Your task to perform on an android device: change the clock display to analog Image 0: 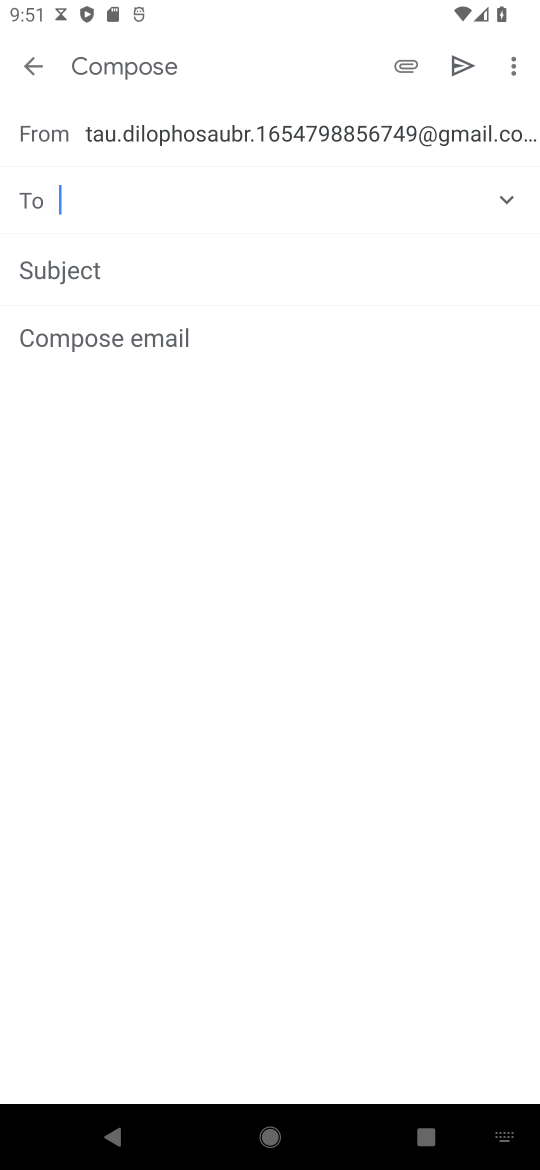
Step 0: press home button
Your task to perform on an android device: change the clock display to analog Image 1: 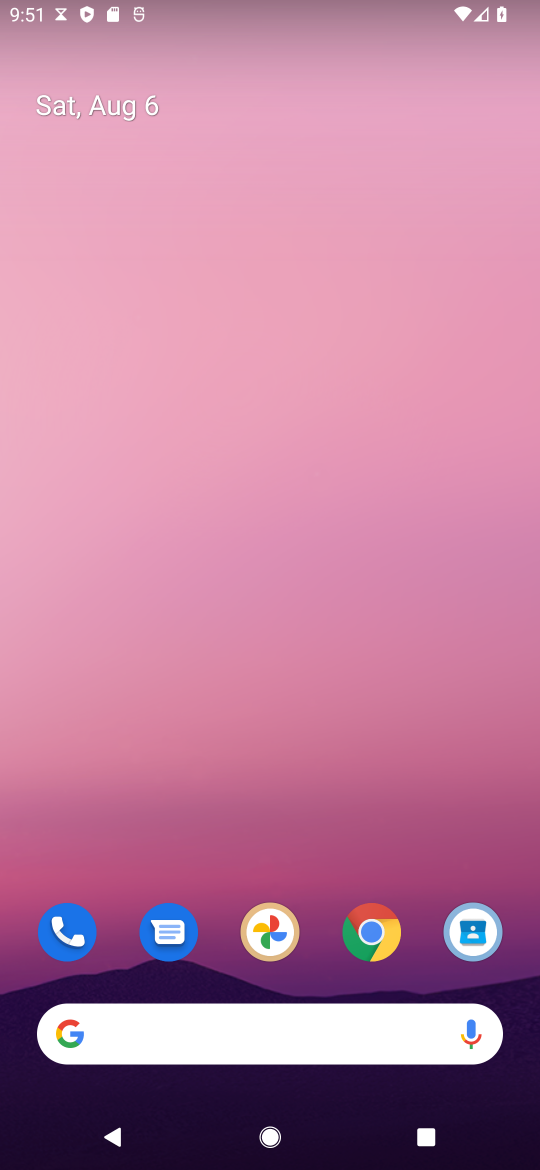
Step 1: drag from (191, 1023) to (240, 325)
Your task to perform on an android device: change the clock display to analog Image 2: 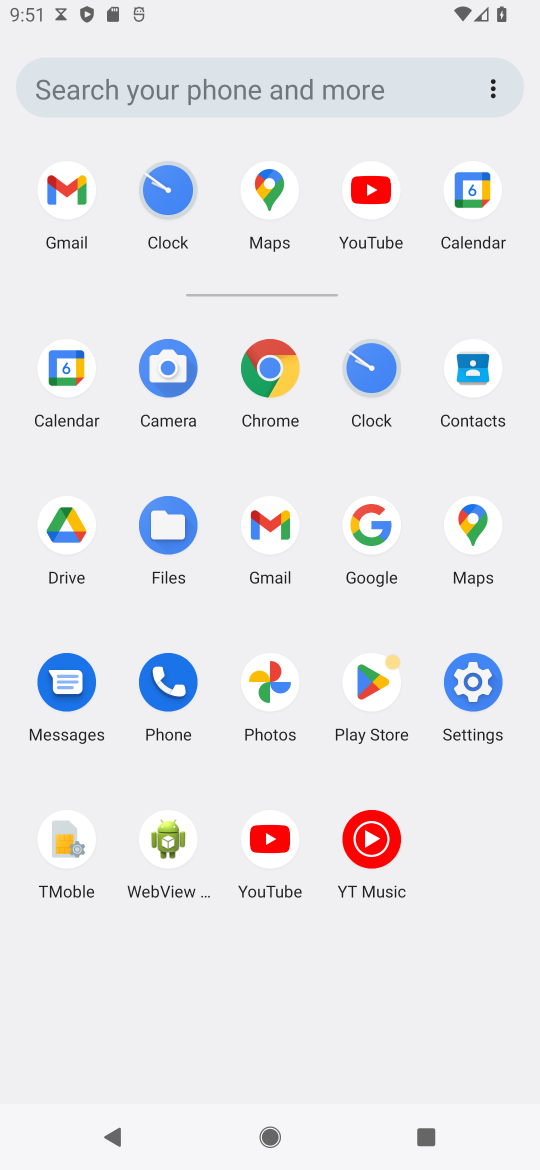
Step 2: click (167, 196)
Your task to perform on an android device: change the clock display to analog Image 3: 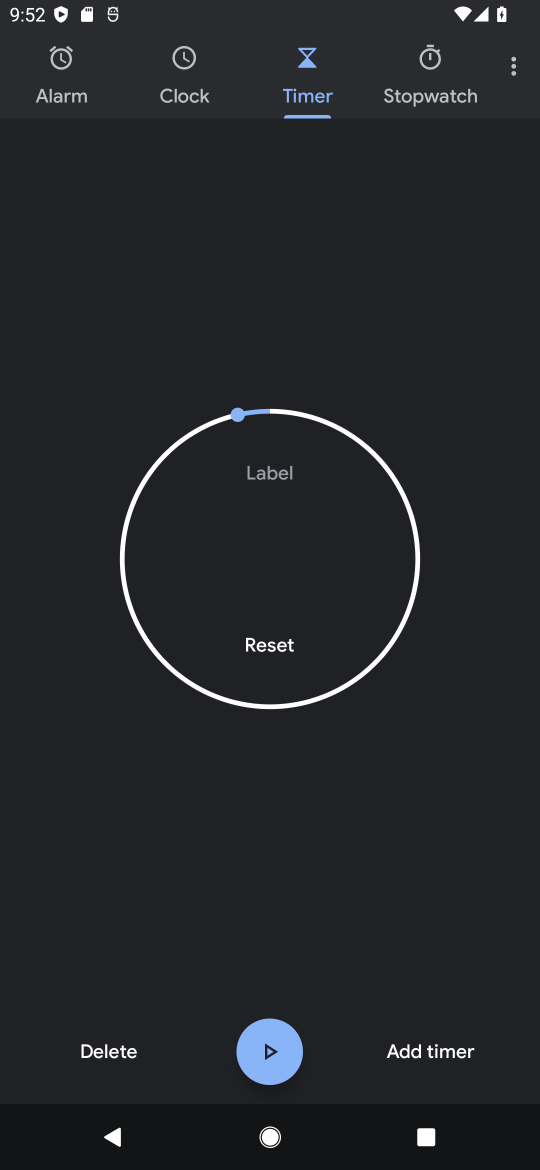
Step 3: click (513, 69)
Your task to perform on an android device: change the clock display to analog Image 4: 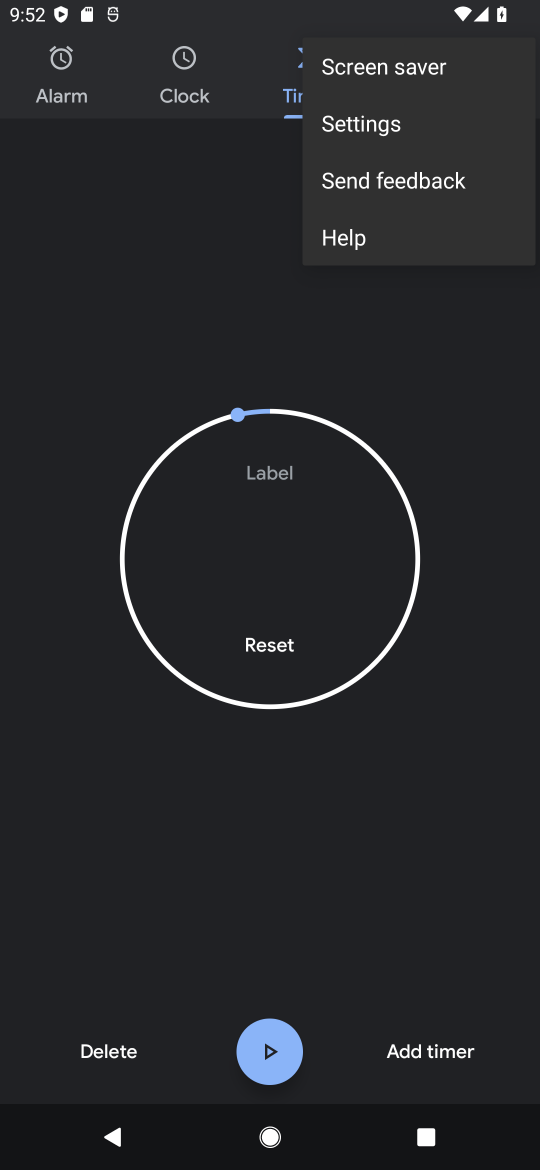
Step 4: click (378, 119)
Your task to perform on an android device: change the clock display to analog Image 5: 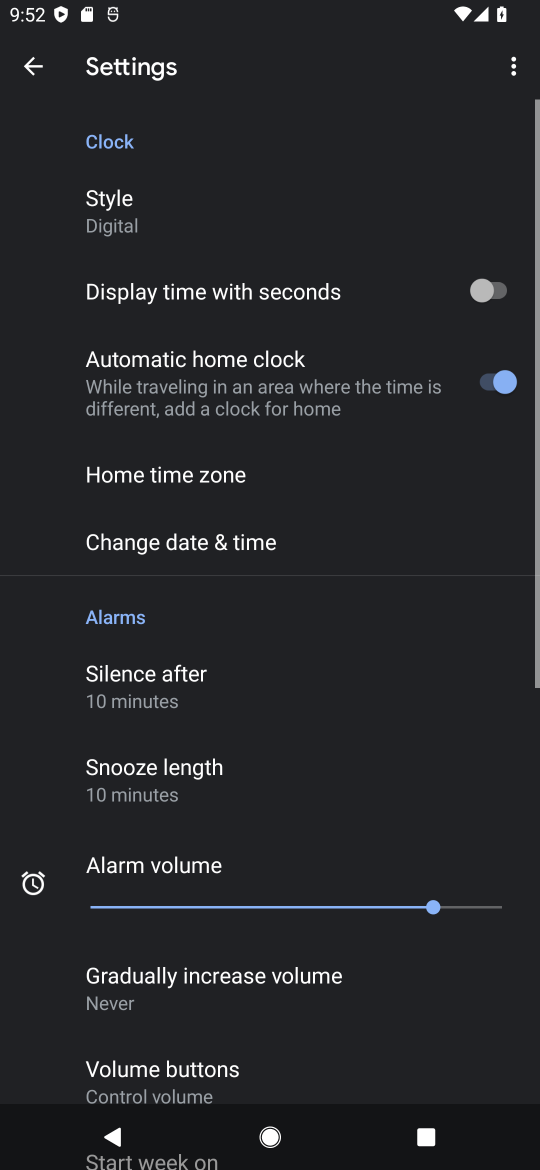
Step 5: click (113, 229)
Your task to perform on an android device: change the clock display to analog Image 6: 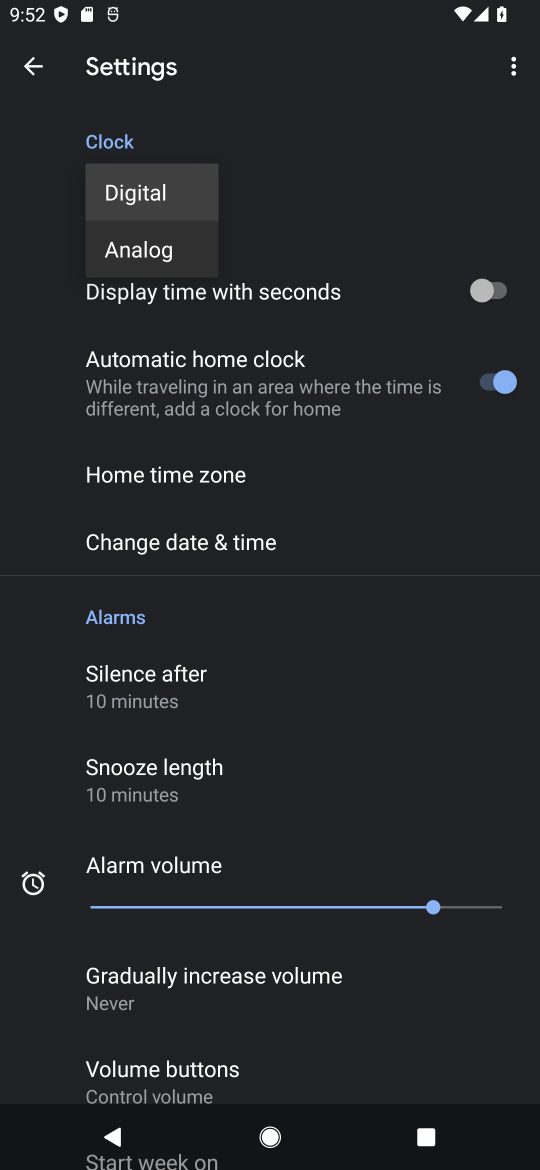
Step 6: click (148, 250)
Your task to perform on an android device: change the clock display to analog Image 7: 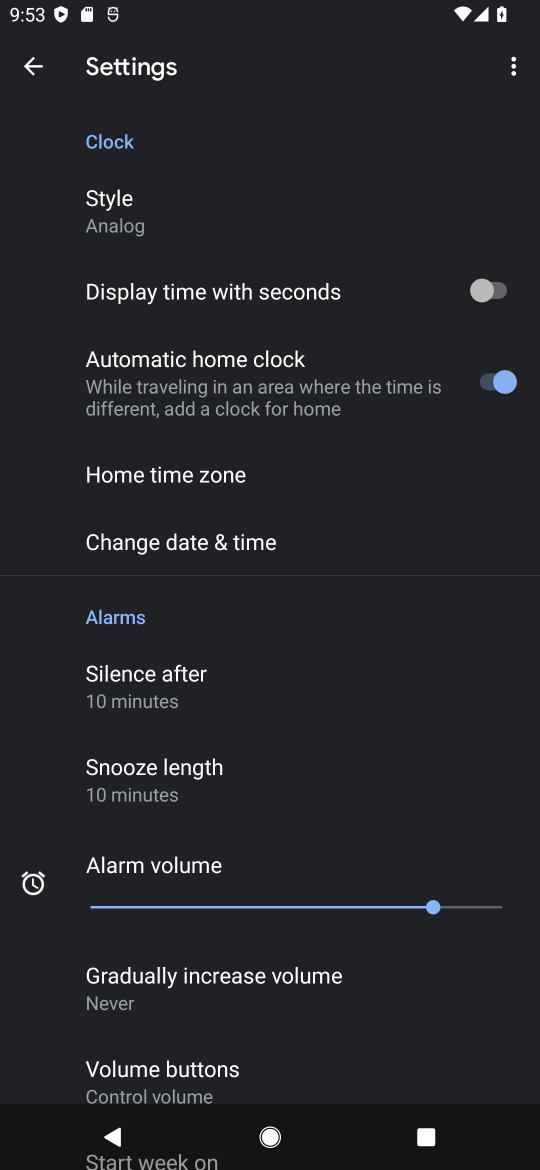
Step 7: task complete